Your task to perform on an android device: What's on my calendar tomorrow? Image 0: 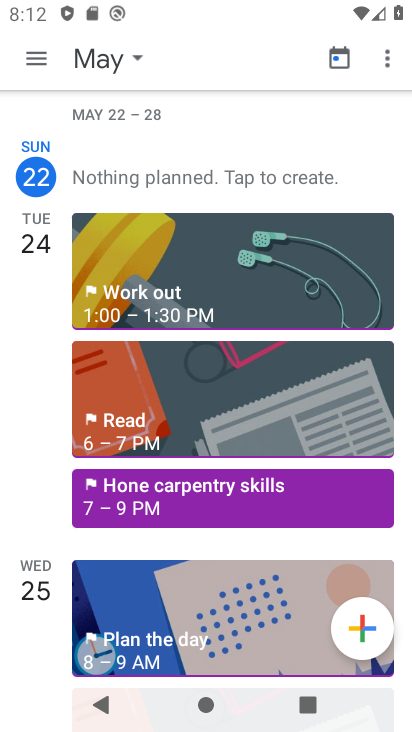
Step 0: press home button
Your task to perform on an android device: What's on my calendar tomorrow? Image 1: 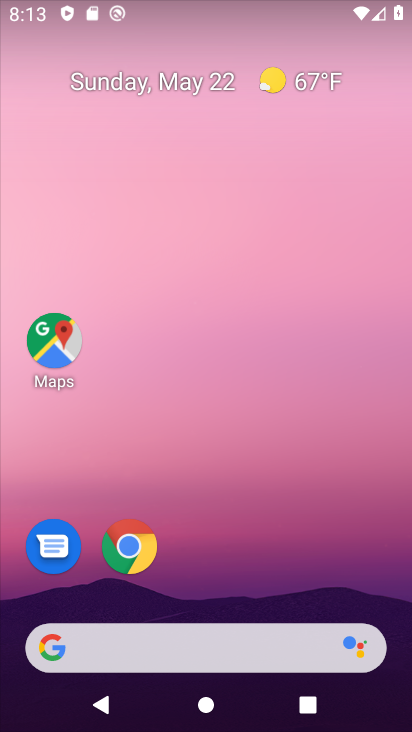
Step 1: drag from (214, 597) to (265, 6)
Your task to perform on an android device: What's on my calendar tomorrow? Image 2: 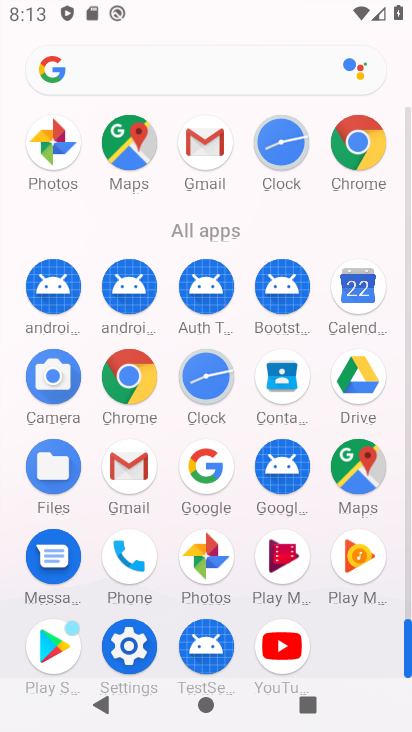
Step 2: click (370, 285)
Your task to perform on an android device: What's on my calendar tomorrow? Image 3: 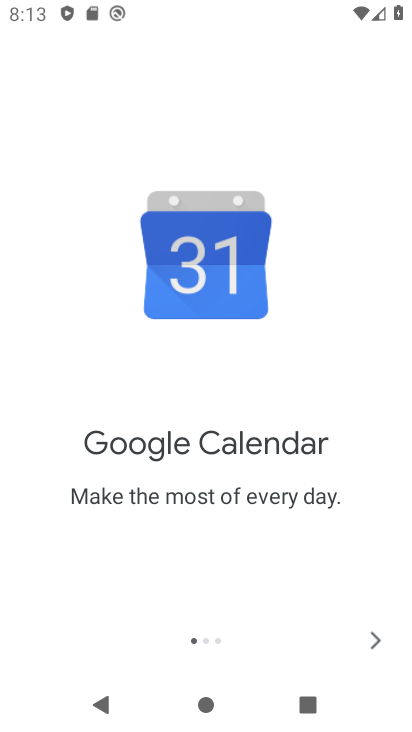
Step 3: click (375, 640)
Your task to perform on an android device: What's on my calendar tomorrow? Image 4: 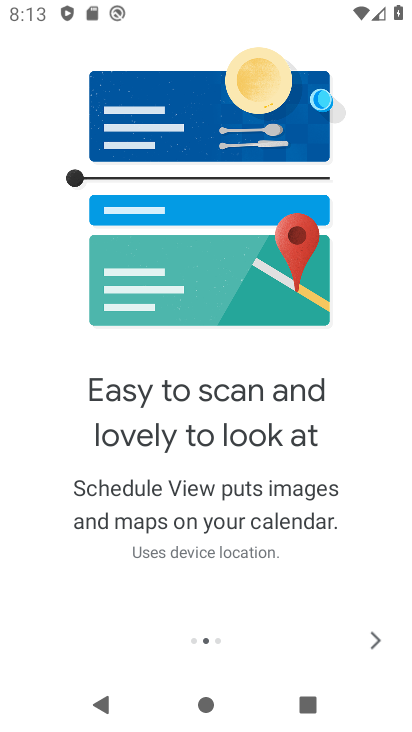
Step 4: click (374, 639)
Your task to perform on an android device: What's on my calendar tomorrow? Image 5: 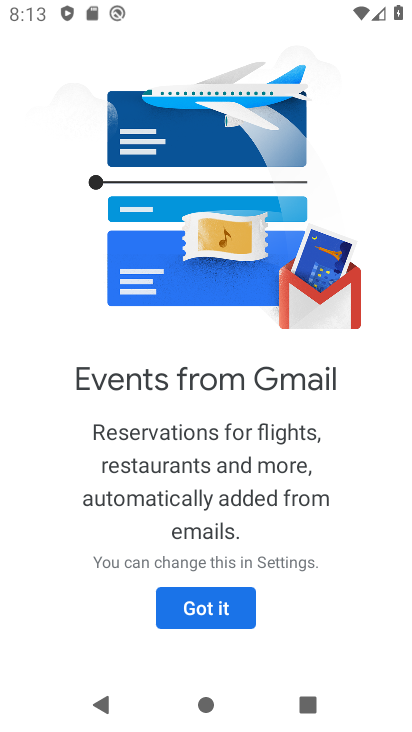
Step 5: click (211, 609)
Your task to perform on an android device: What's on my calendar tomorrow? Image 6: 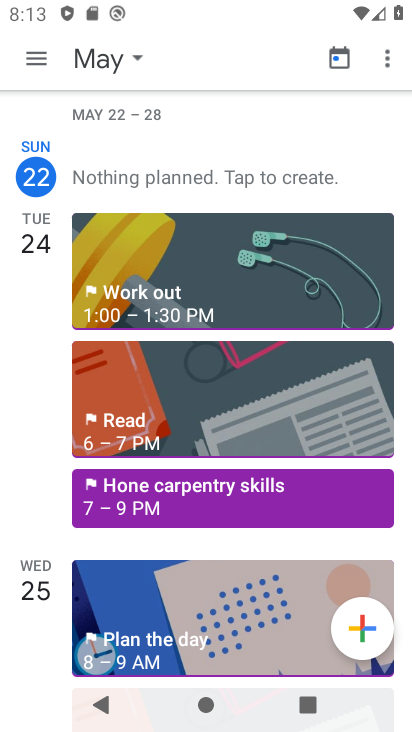
Step 6: click (39, 58)
Your task to perform on an android device: What's on my calendar tomorrow? Image 7: 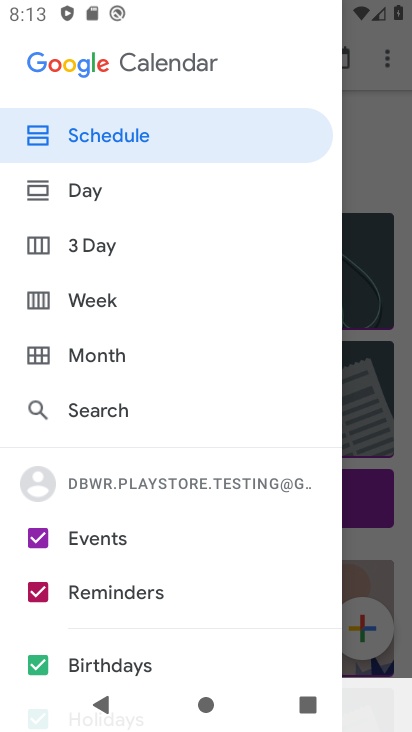
Step 7: click (108, 241)
Your task to perform on an android device: What's on my calendar tomorrow? Image 8: 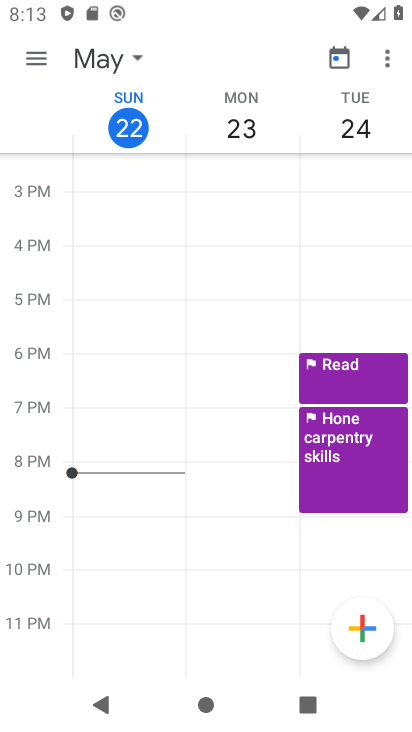
Step 8: task complete